Your task to perform on an android device: turn off data saver in the chrome app Image 0: 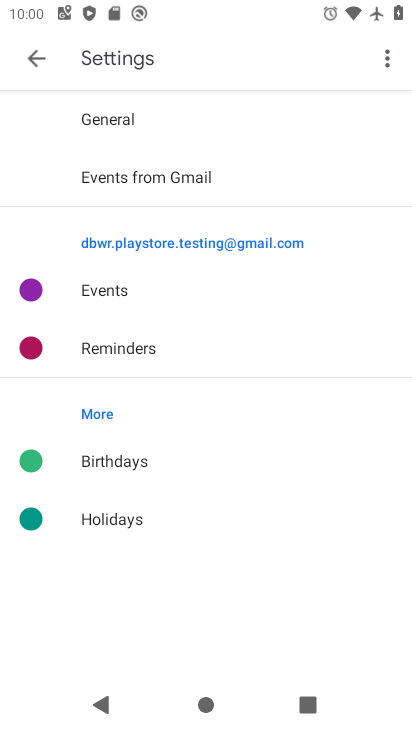
Step 0: press home button
Your task to perform on an android device: turn off data saver in the chrome app Image 1: 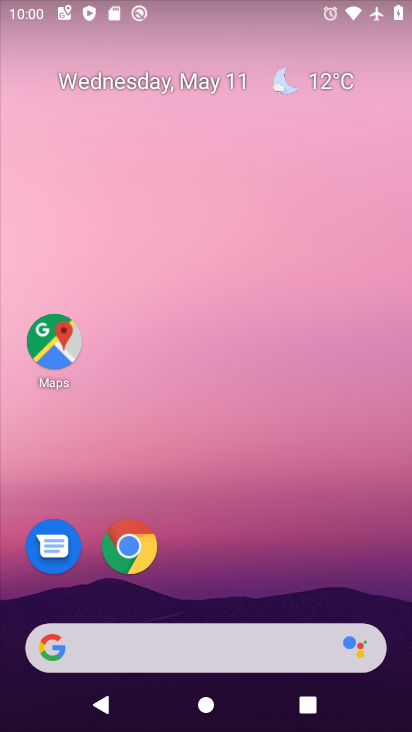
Step 1: click (129, 543)
Your task to perform on an android device: turn off data saver in the chrome app Image 2: 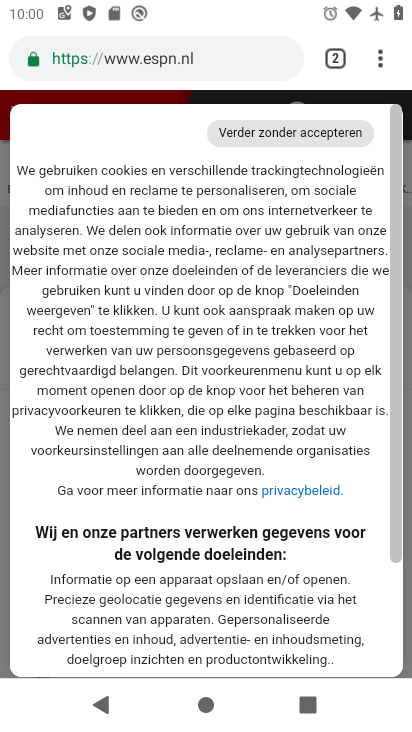
Step 2: click (380, 61)
Your task to perform on an android device: turn off data saver in the chrome app Image 3: 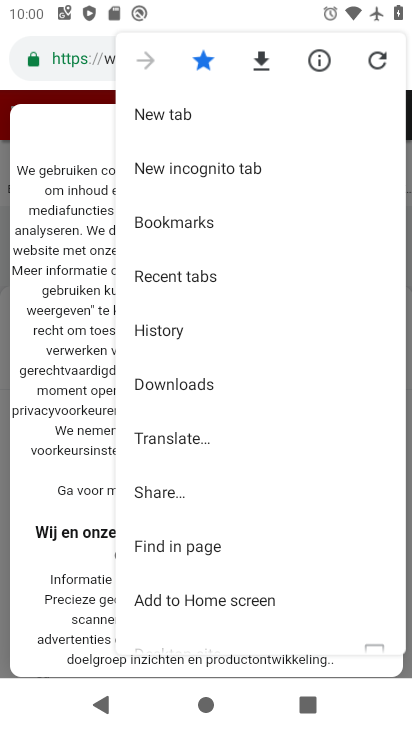
Step 3: drag from (300, 575) to (268, 230)
Your task to perform on an android device: turn off data saver in the chrome app Image 4: 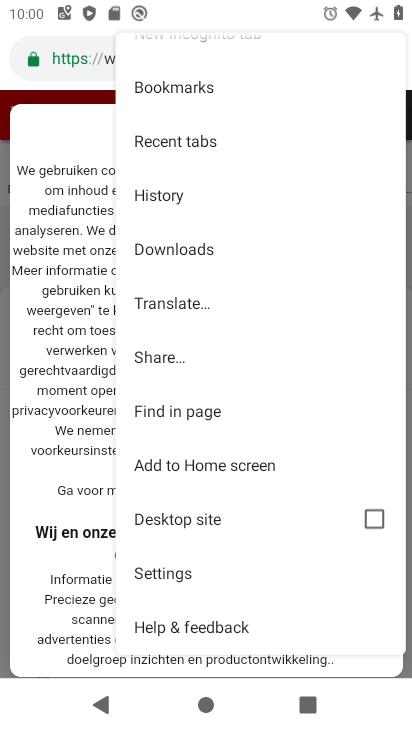
Step 4: click (169, 574)
Your task to perform on an android device: turn off data saver in the chrome app Image 5: 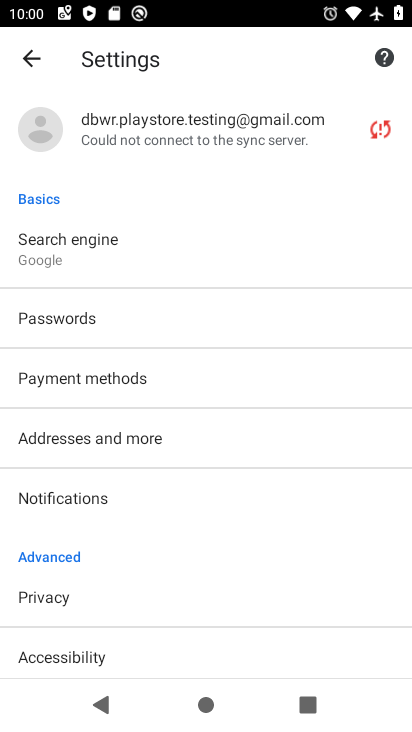
Step 5: drag from (222, 609) to (258, 252)
Your task to perform on an android device: turn off data saver in the chrome app Image 6: 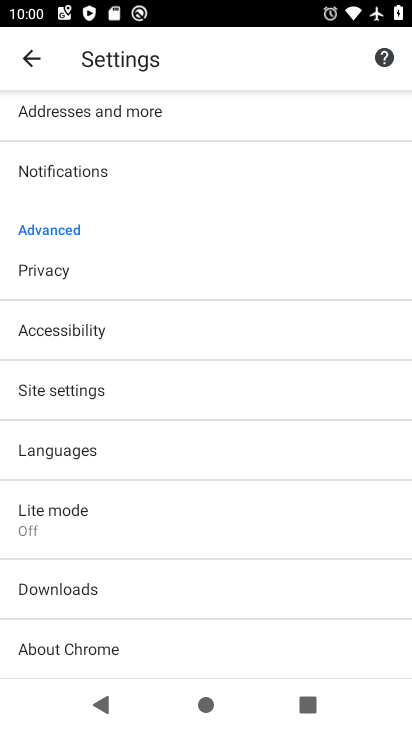
Step 6: click (44, 511)
Your task to perform on an android device: turn off data saver in the chrome app Image 7: 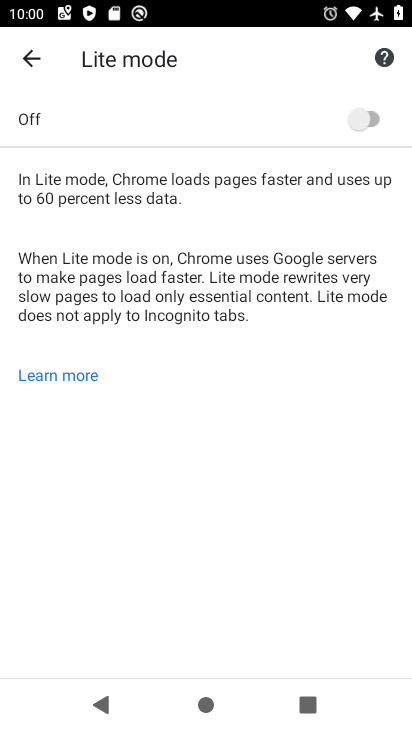
Step 7: task complete